Your task to perform on an android device: What is the recent news? Image 0: 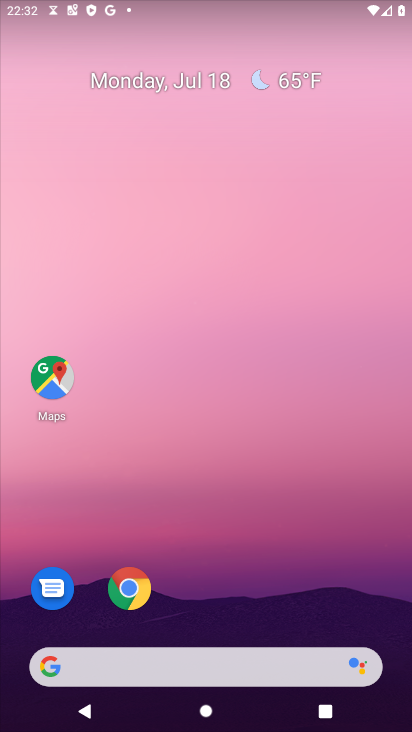
Step 0: drag from (198, 665) to (262, 108)
Your task to perform on an android device: What is the recent news? Image 1: 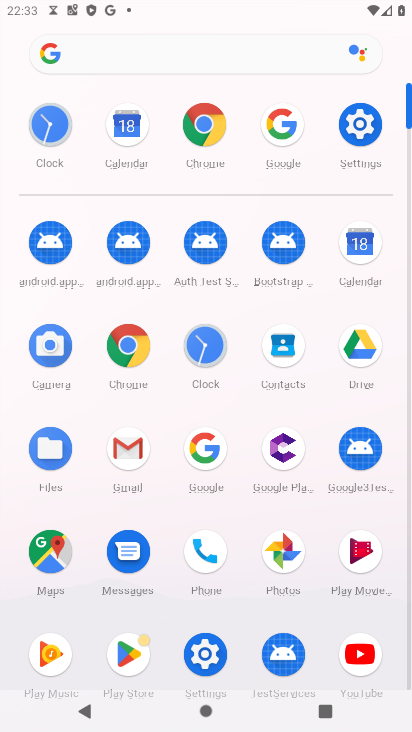
Step 1: click (278, 124)
Your task to perform on an android device: What is the recent news? Image 2: 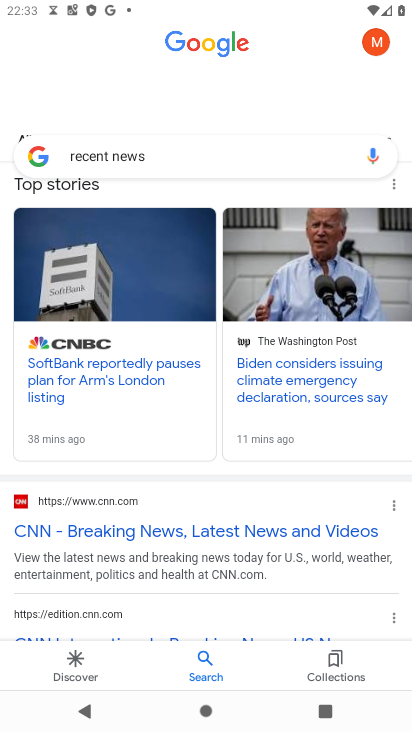
Step 2: click (120, 378)
Your task to perform on an android device: What is the recent news? Image 3: 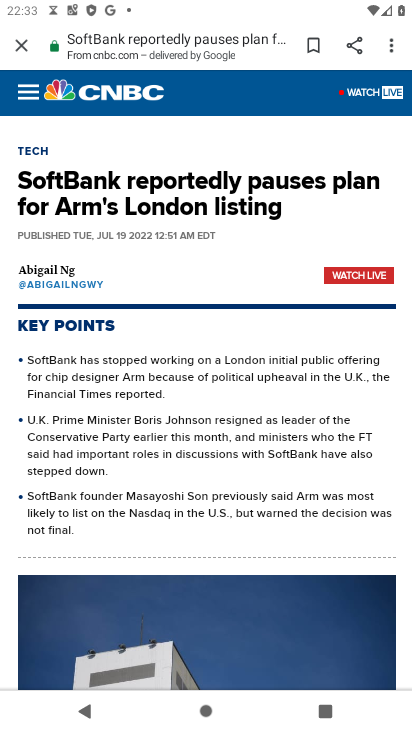
Step 3: task complete